Your task to perform on an android device: change the clock display to show seconds Image 0: 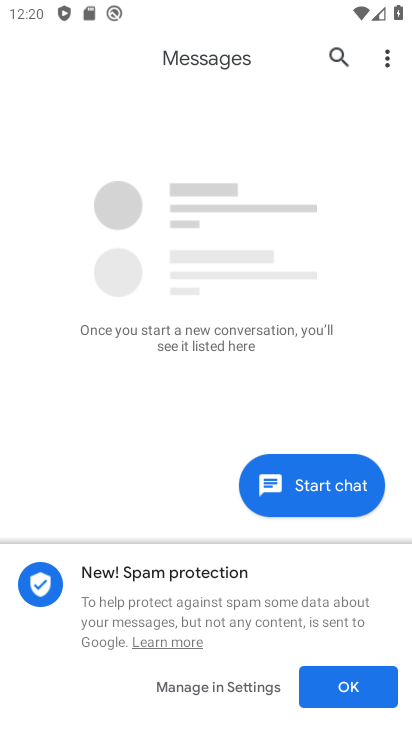
Step 0: press home button
Your task to perform on an android device: change the clock display to show seconds Image 1: 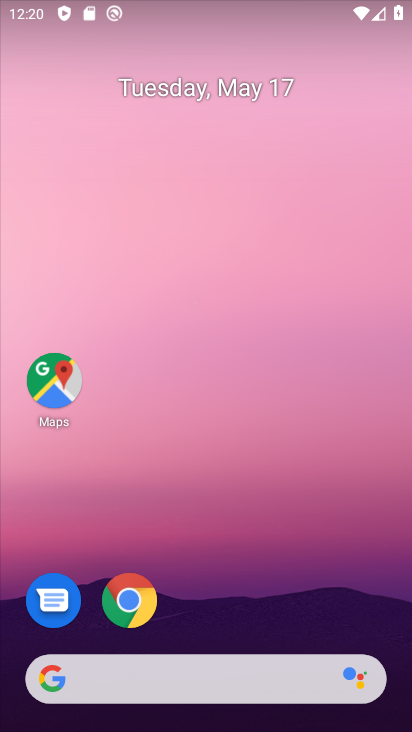
Step 1: drag from (393, 595) to (406, 159)
Your task to perform on an android device: change the clock display to show seconds Image 2: 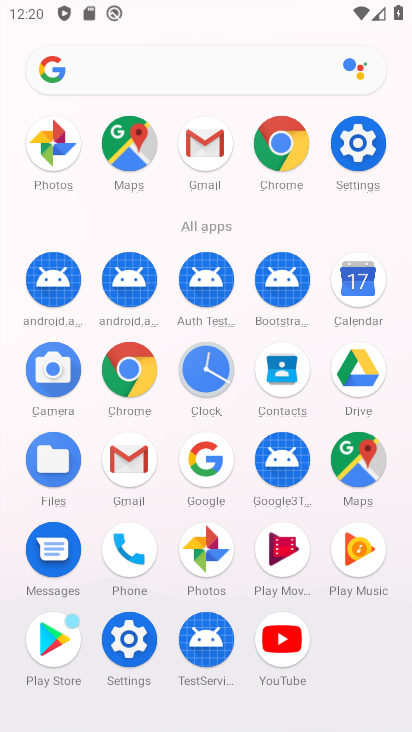
Step 2: click (204, 368)
Your task to perform on an android device: change the clock display to show seconds Image 3: 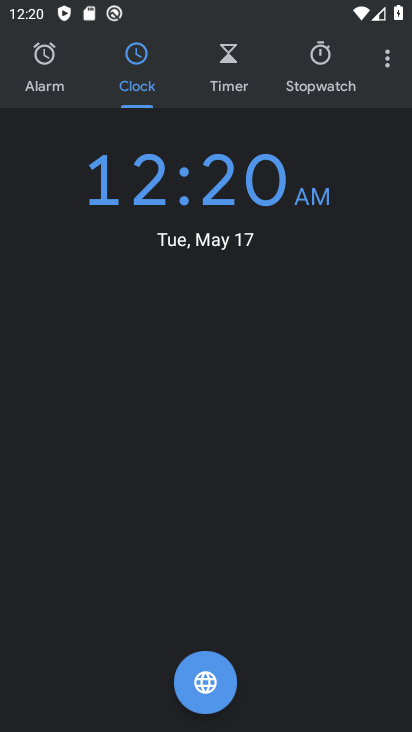
Step 3: click (386, 58)
Your task to perform on an android device: change the clock display to show seconds Image 4: 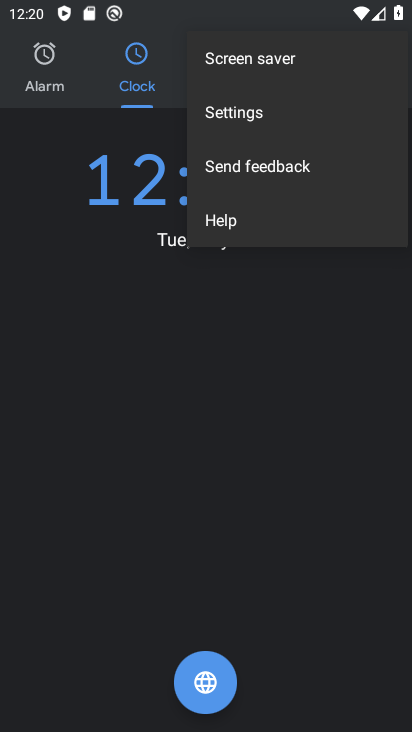
Step 4: click (232, 110)
Your task to perform on an android device: change the clock display to show seconds Image 5: 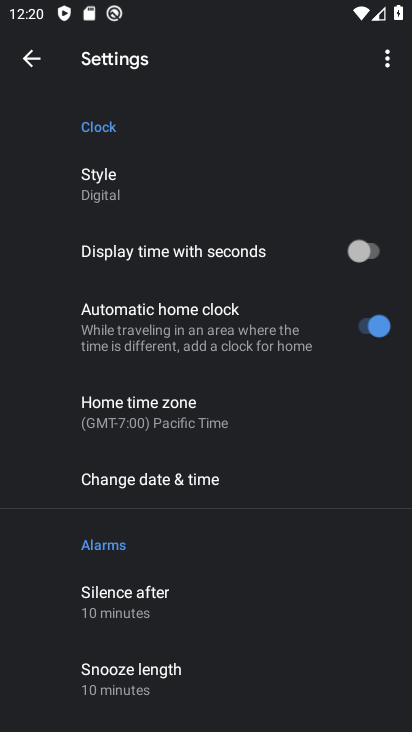
Step 5: click (371, 250)
Your task to perform on an android device: change the clock display to show seconds Image 6: 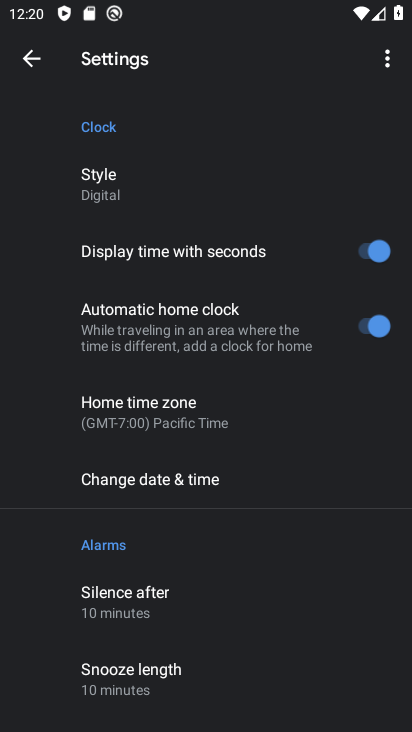
Step 6: task complete